Your task to perform on an android device: add a label to a message in the gmail app Image 0: 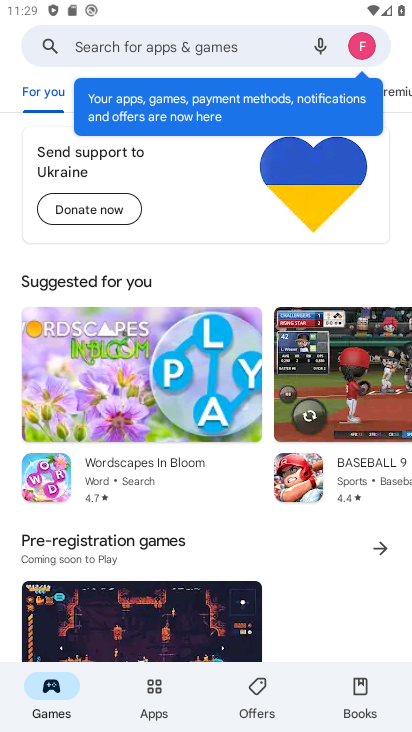
Step 0: press home button
Your task to perform on an android device: add a label to a message in the gmail app Image 1: 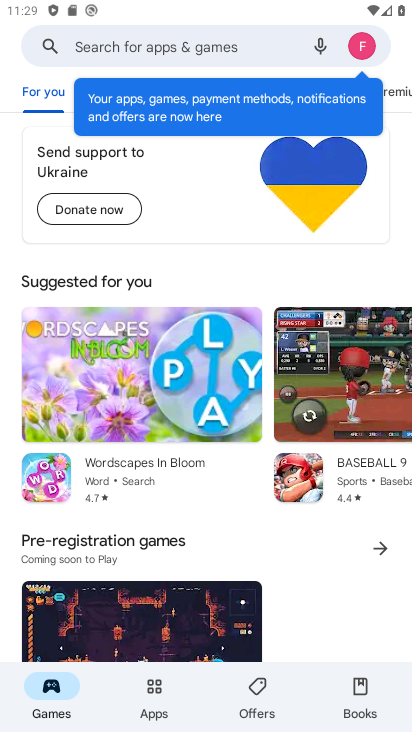
Step 1: press home button
Your task to perform on an android device: add a label to a message in the gmail app Image 2: 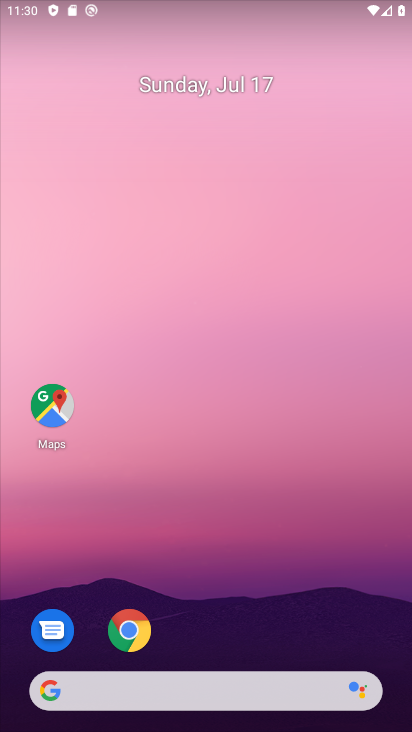
Step 2: drag from (226, 590) to (175, 115)
Your task to perform on an android device: add a label to a message in the gmail app Image 3: 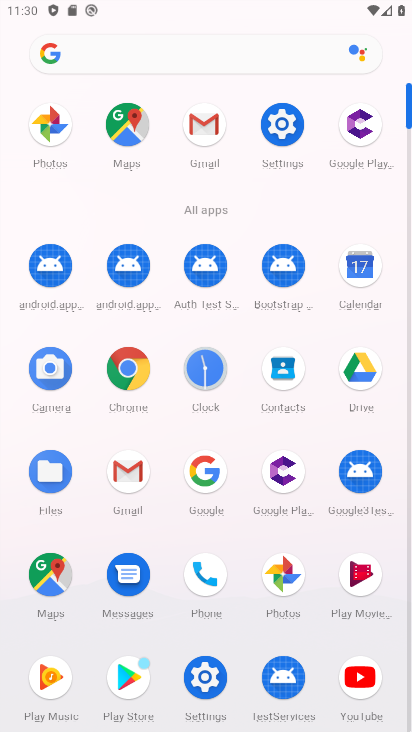
Step 3: click (134, 479)
Your task to perform on an android device: add a label to a message in the gmail app Image 4: 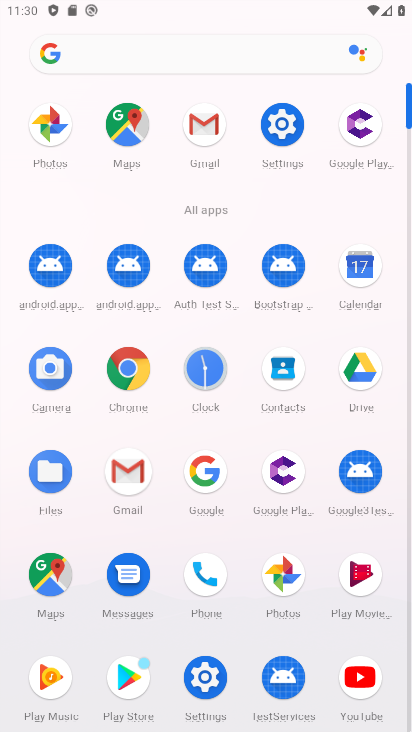
Step 4: click (133, 478)
Your task to perform on an android device: add a label to a message in the gmail app Image 5: 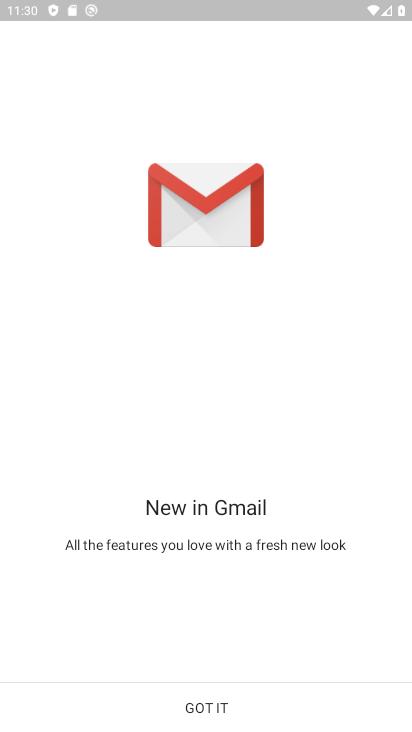
Step 5: click (209, 694)
Your task to perform on an android device: add a label to a message in the gmail app Image 6: 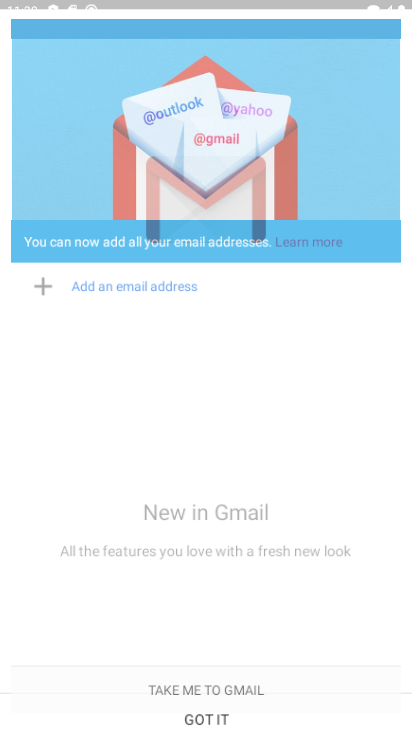
Step 6: click (210, 693)
Your task to perform on an android device: add a label to a message in the gmail app Image 7: 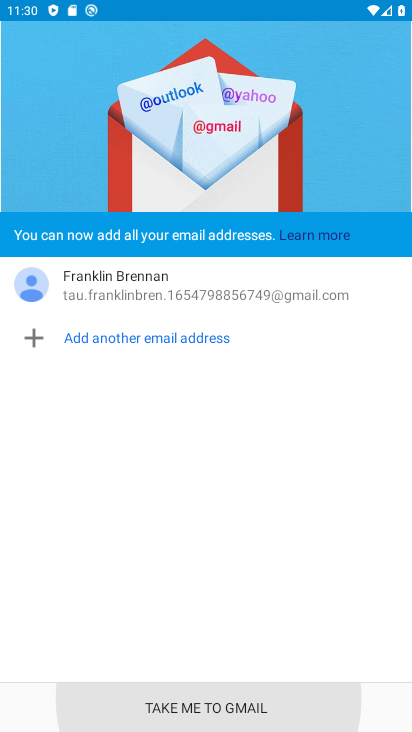
Step 7: click (210, 693)
Your task to perform on an android device: add a label to a message in the gmail app Image 8: 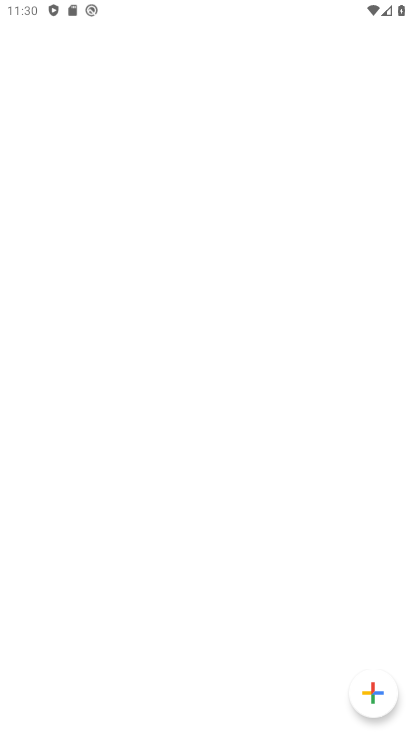
Step 8: click (204, 703)
Your task to perform on an android device: add a label to a message in the gmail app Image 9: 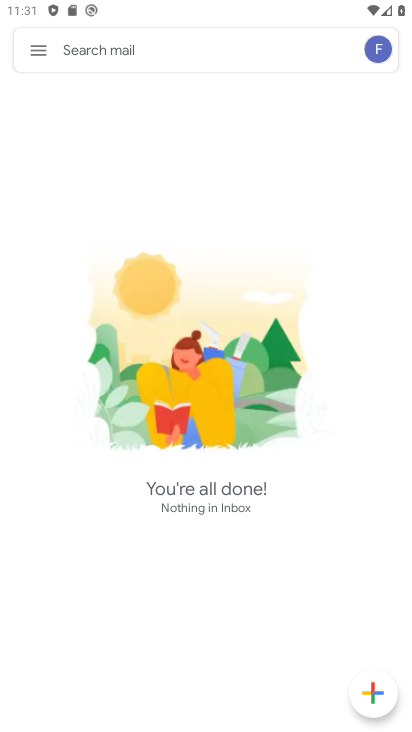
Step 9: drag from (32, 53) to (108, 405)
Your task to perform on an android device: add a label to a message in the gmail app Image 10: 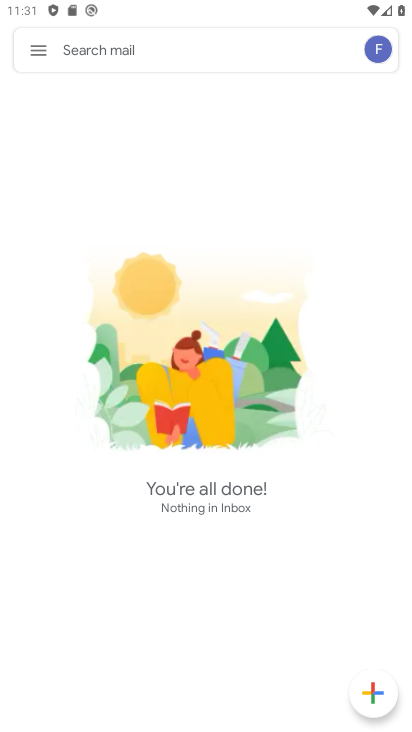
Step 10: drag from (38, 60) to (66, 185)
Your task to perform on an android device: add a label to a message in the gmail app Image 11: 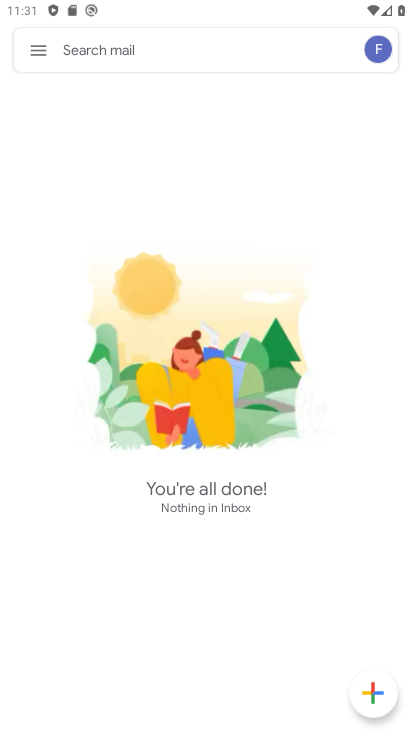
Step 11: click (39, 51)
Your task to perform on an android device: add a label to a message in the gmail app Image 12: 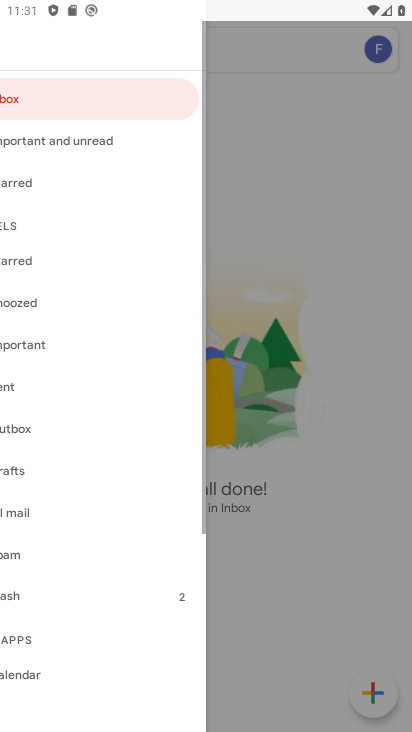
Step 12: click (39, 51)
Your task to perform on an android device: add a label to a message in the gmail app Image 13: 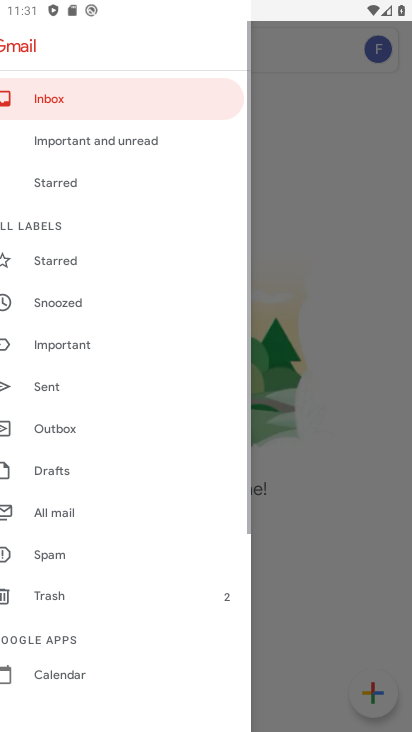
Step 13: click (39, 51)
Your task to perform on an android device: add a label to a message in the gmail app Image 14: 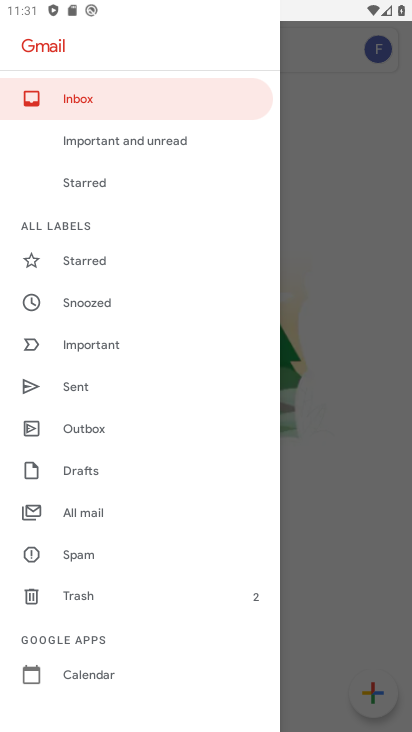
Step 14: click (83, 513)
Your task to perform on an android device: add a label to a message in the gmail app Image 15: 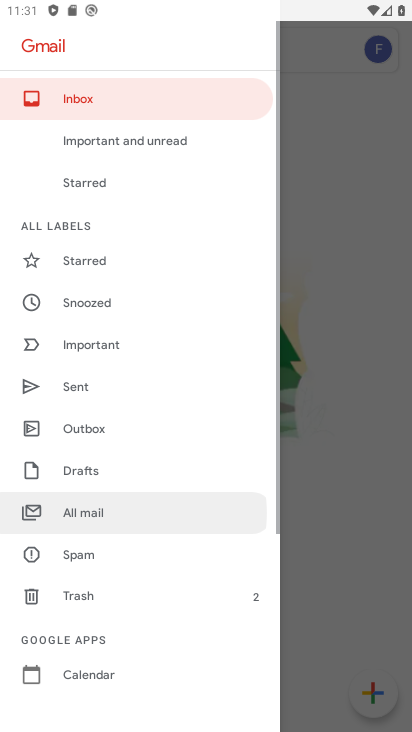
Step 15: click (83, 513)
Your task to perform on an android device: add a label to a message in the gmail app Image 16: 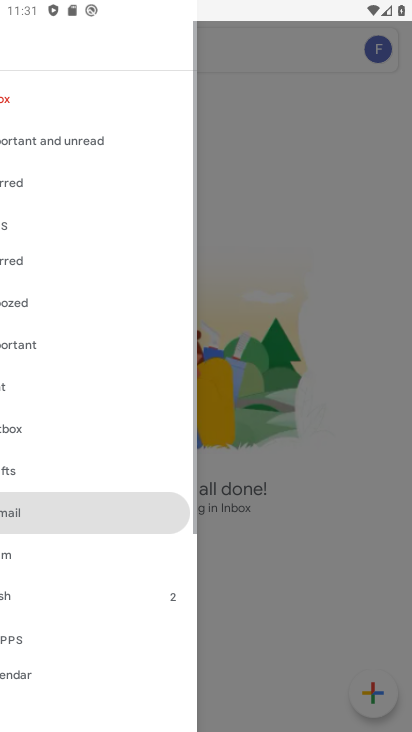
Step 16: click (85, 512)
Your task to perform on an android device: add a label to a message in the gmail app Image 17: 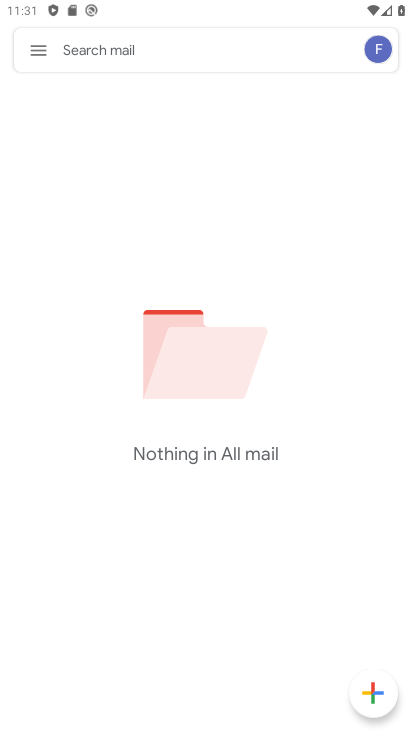
Step 17: task complete